Your task to perform on an android device: Go to notification settings Image 0: 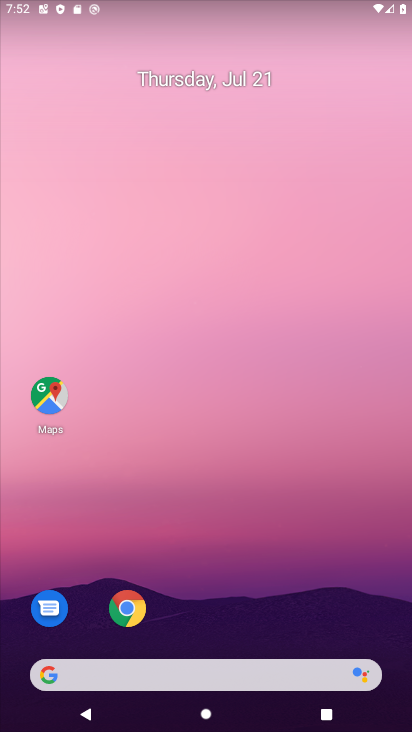
Step 0: drag from (192, 679) to (184, 256)
Your task to perform on an android device: Go to notification settings Image 1: 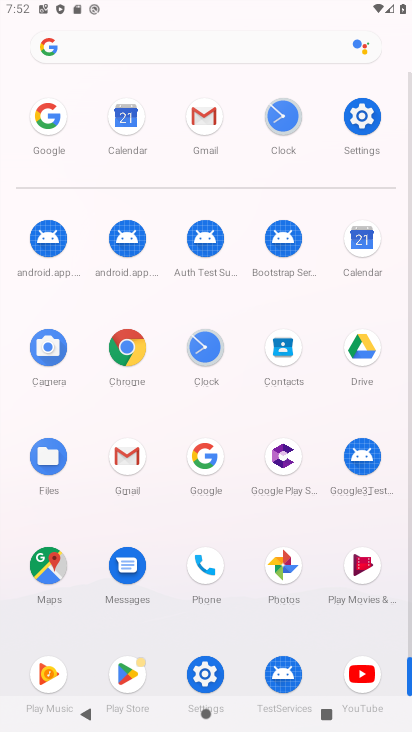
Step 1: click (364, 116)
Your task to perform on an android device: Go to notification settings Image 2: 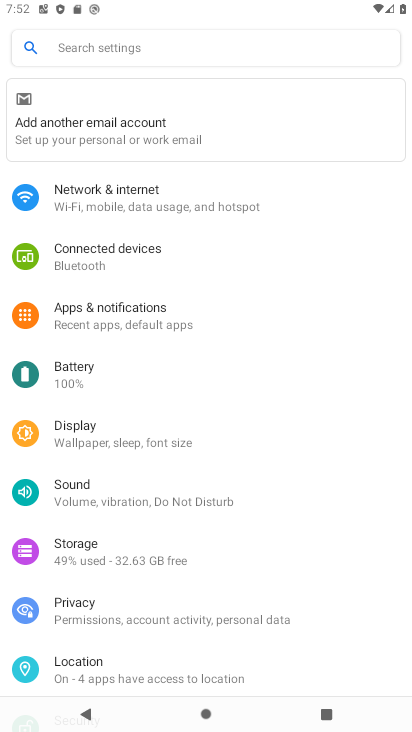
Step 2: click (127, 313)
Your task to perform on an android device: Go to notification settings Image 3: 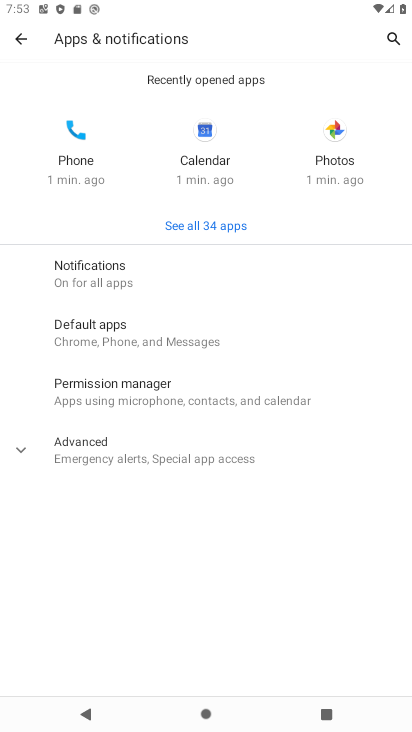
Step 3: click (106, 277)
Your task to perform on an android device: Go to notification settings Image 4: 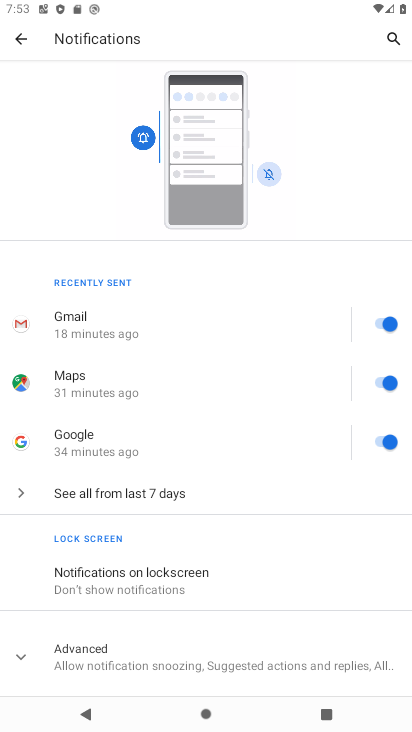
Step 4: task complete